Your task to perform on an android device: Search for Mexican restaurants on Maps Image 0: 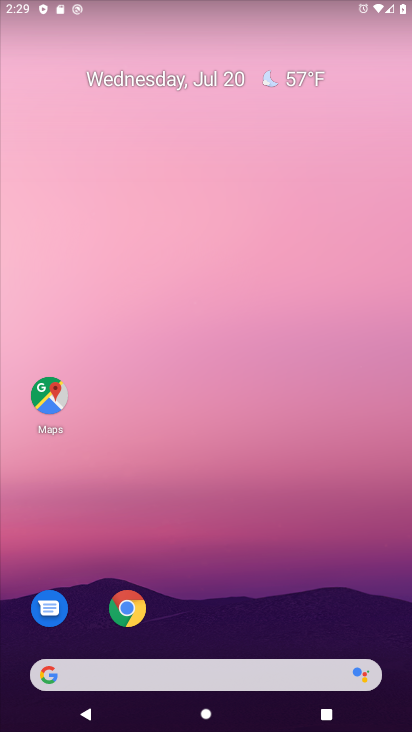
Step 0: click (6, 465)
Your task to perform on an android device: Search for Mexican restaurants on Maps Image 1: 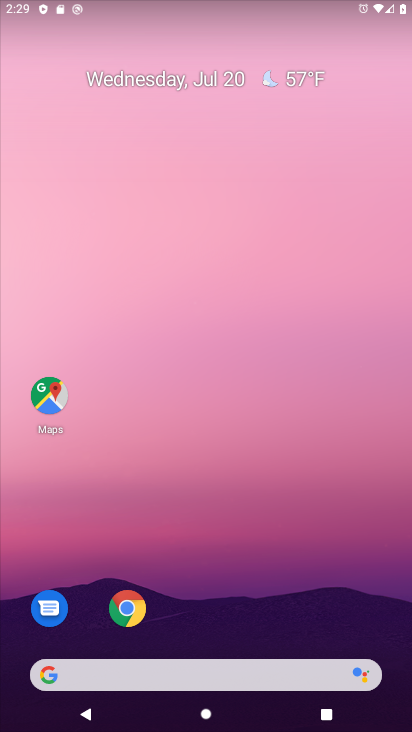
Step 1: click (46, 398)
Your task to perform on an android device: Search for Mexican restaurants on Maps Image 2: 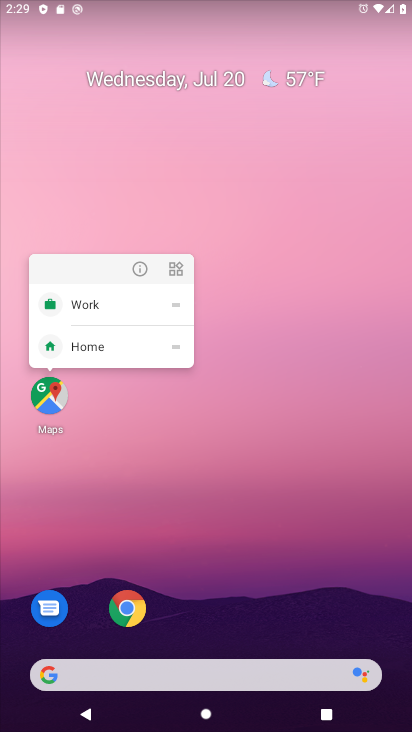
Step 2: click (49, 392)
Your task to perform on an android device: Search for Mexican restaurants on Maps Image 3: 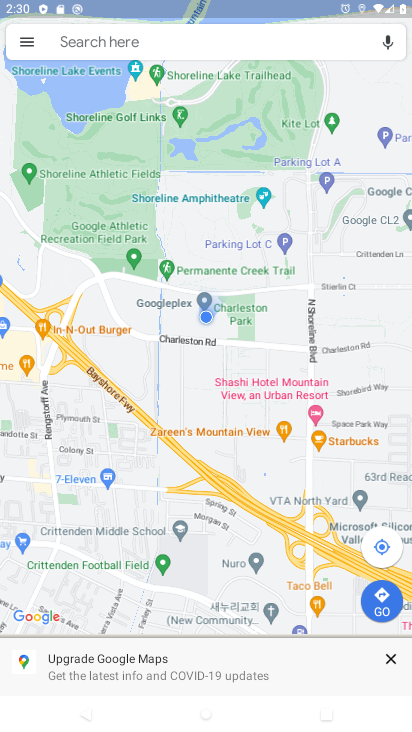
Step 3: click (88, 40)
Your task to perform on an android device: Search for Mexican restaurants on Maps Image 4: 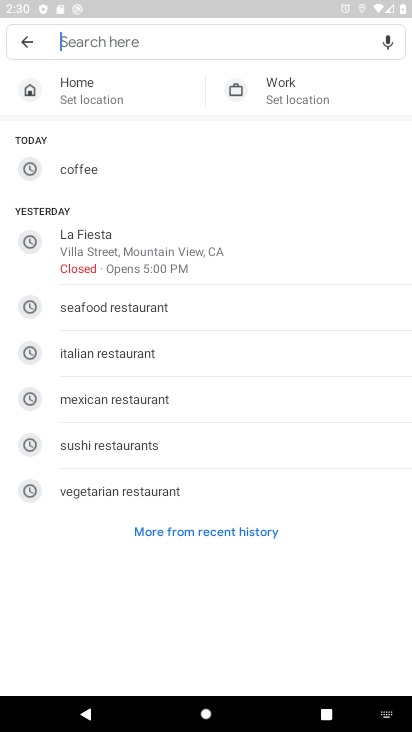
Step 4: click (111, 403)
Your task to perform on an android device: Search for Mexican restaurants on Maps Image 5: 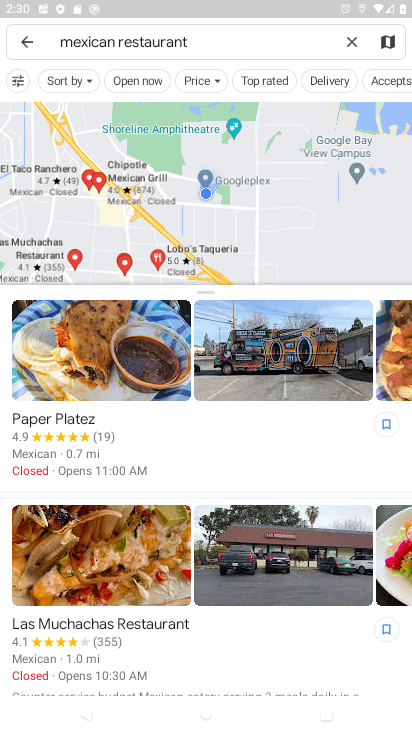
Step 5: task complete